Your task to perform on an android device: Open Chrome and go to the settings page Image 0: 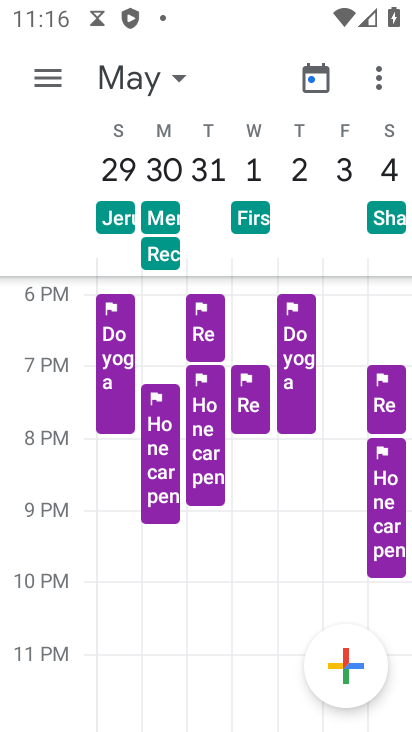
Step 0: press home button
Your task to perform on an android device: Open Chrome and go to the settings page Image 1: 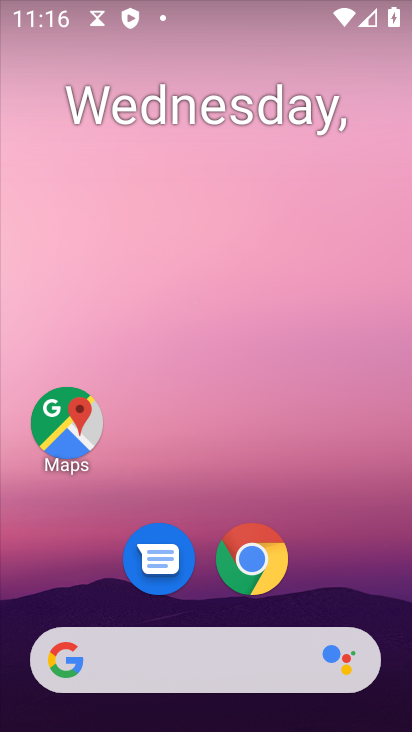
Step 1: click (273, 565)
Your task to perform on an android device: Open Chrome and go to the settings page Image 2: 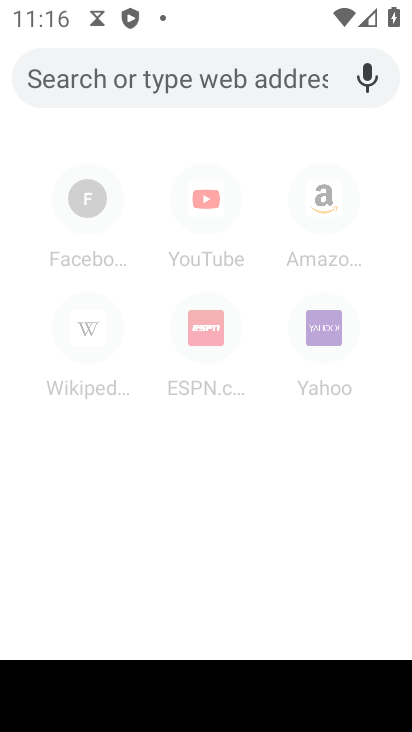
Step 2: click (349, 492)
Your task to perform on an android device: Open Chrome and go to the settings page Image 3: 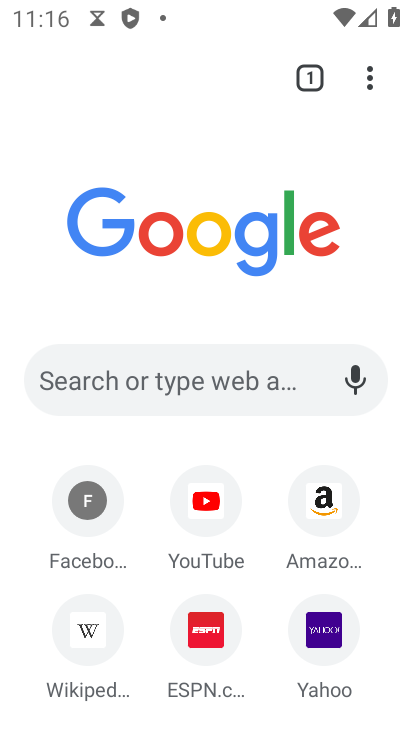
Step 3: click (366, 77)
Your task to perform on an android device: Open Chrome and go to the settings page Image 4: 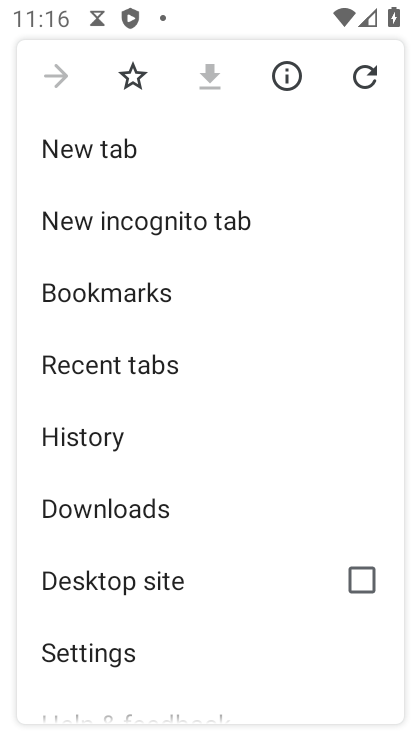
Step 4: click (157, 649)
Your task to perform on an android device: Open Chrome and go to the settings page Image 5: 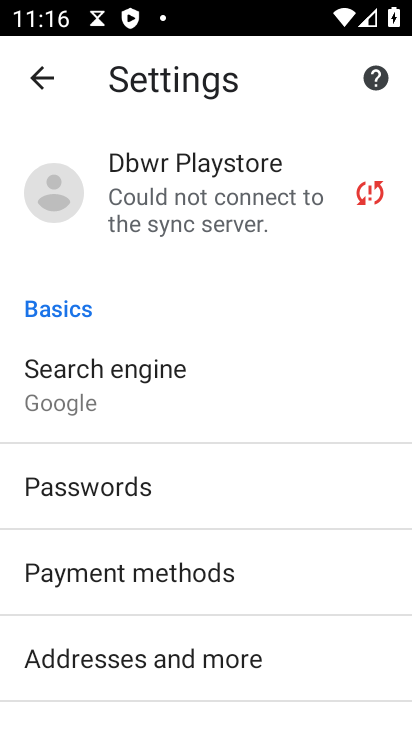
Step 5: task complete